Your task to perform on an android device: Set the phone to "Do not disturb". Image 0: 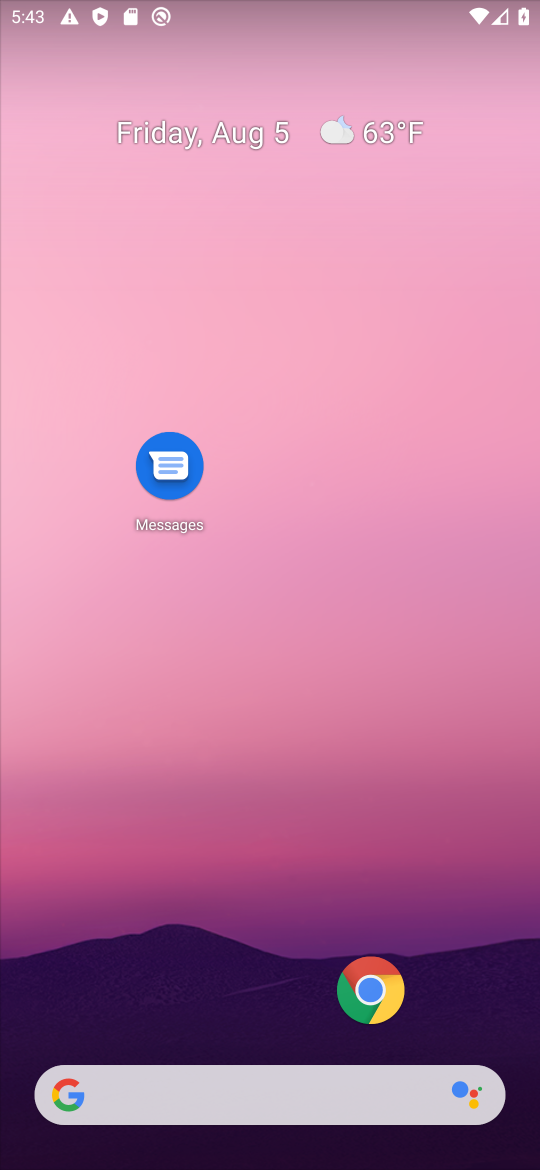
Step 0: drag from (206, 845) to (206, 422)
Your task to perform on an android device: Set the phone to "Do not disturb". Image 1: 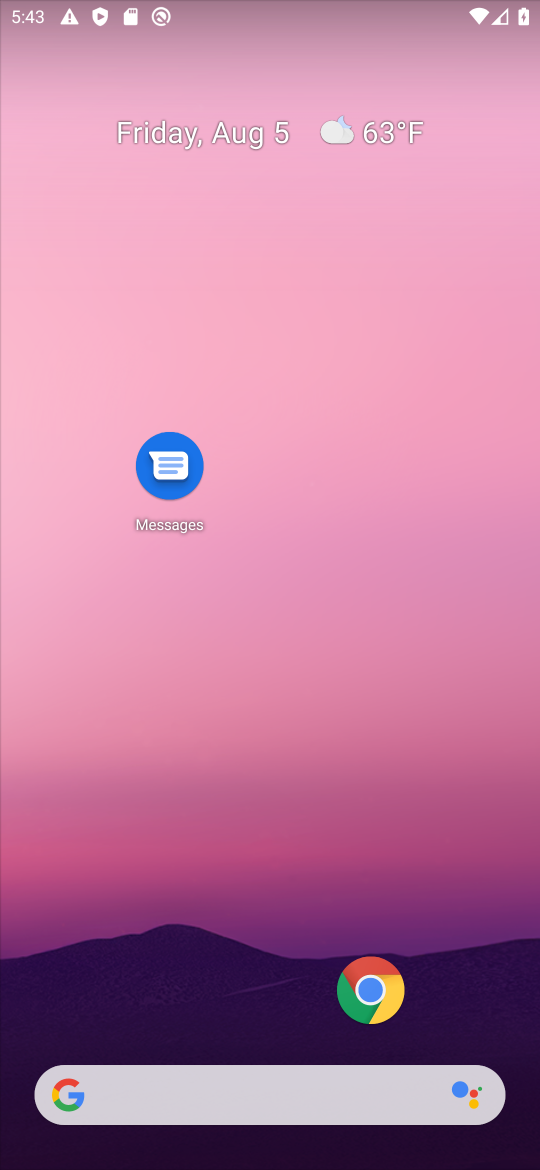
Step 1: drag from (244, 1023) to (284, 232)
Your task to perform on an android device: Set the phone to "Do not disturb". Image 2: 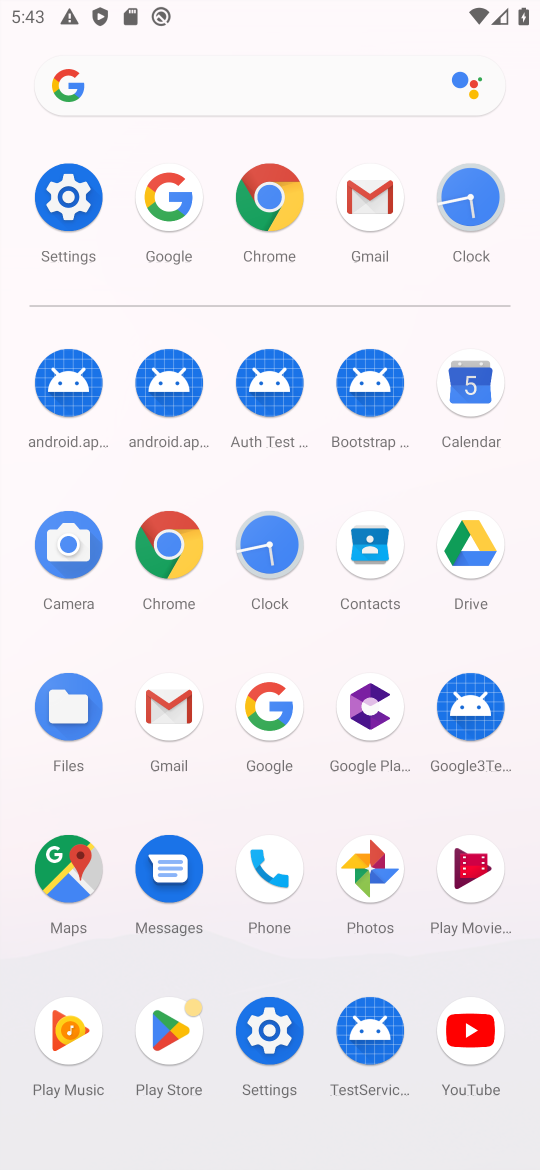
Step 2: click (77, 198)
Your task to perform on an android device: Set the phone to "Do not disturb". Image 3: 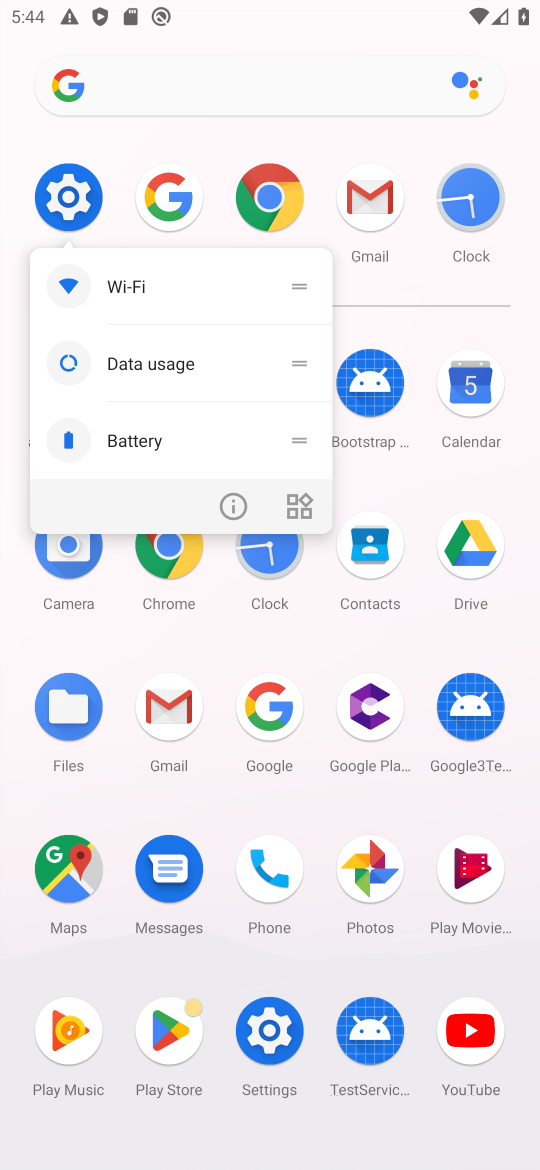
Step 3: click (61, 204)
Your task to perform on an android device: Set the phone to "Do not disturb". Image 4: 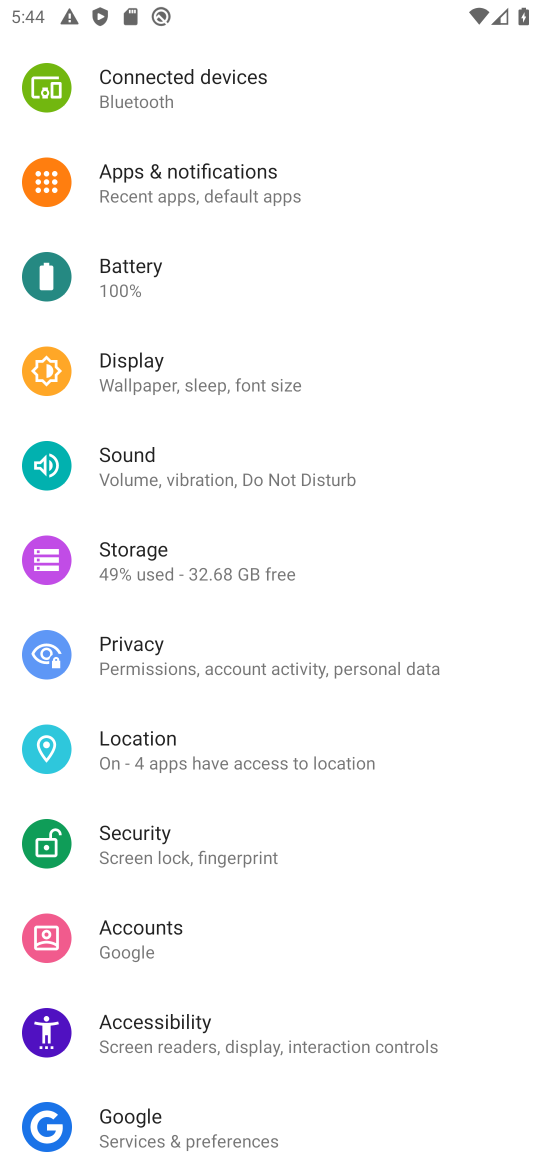
Step 4: click (212, 476)
Your task to perform on an android device: Set the phone to "Do not disturb". Image 5: 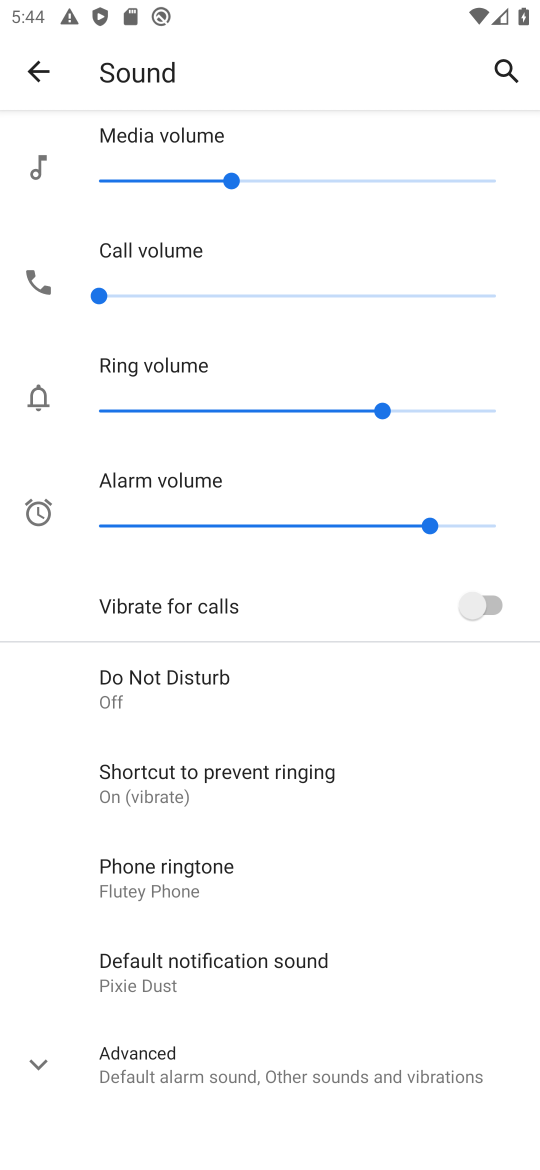
Step 5: click (230, 662)
Your task to perform on an android device: Set the phone to "Do not disturb". Image 6: 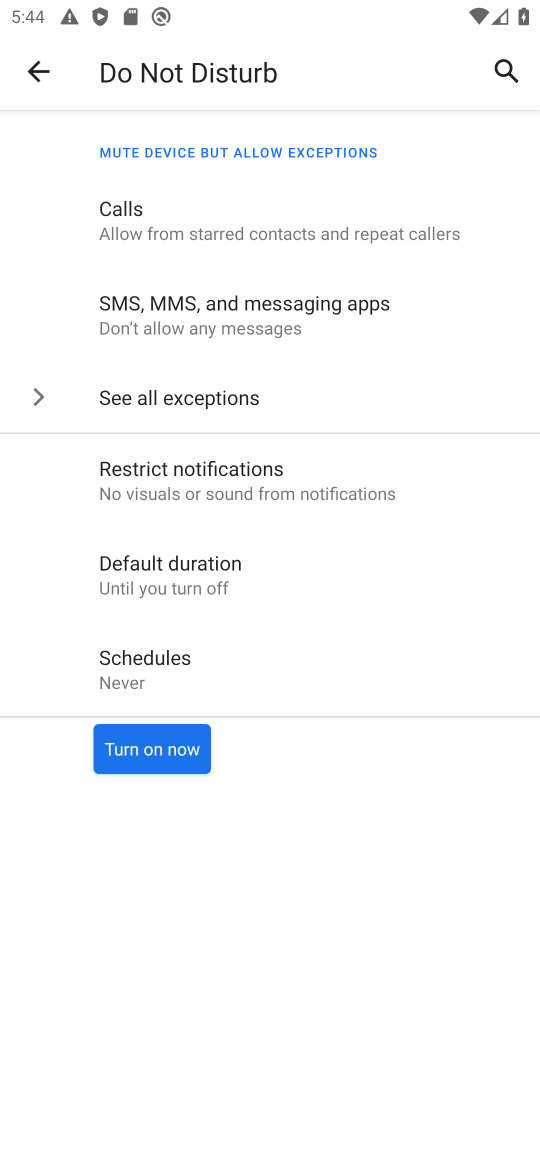
Step 6: click (154, 753)
Your task to perform on an android device: Set the phone to "Do not disturb". Image 7: 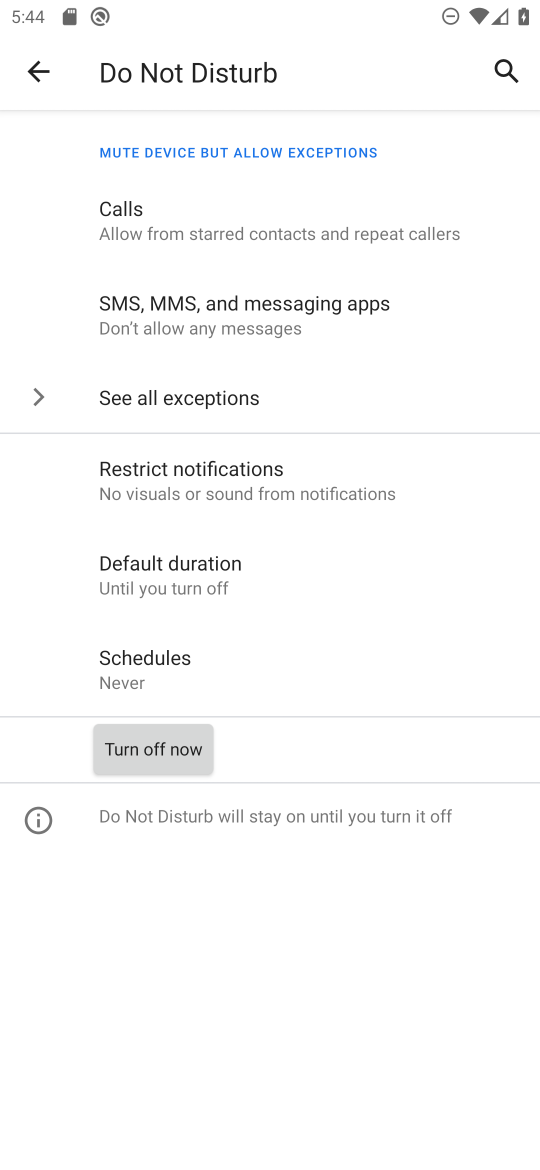
Step 7: task complete